Your task to perform on an android device: open wifi settings Image 0: 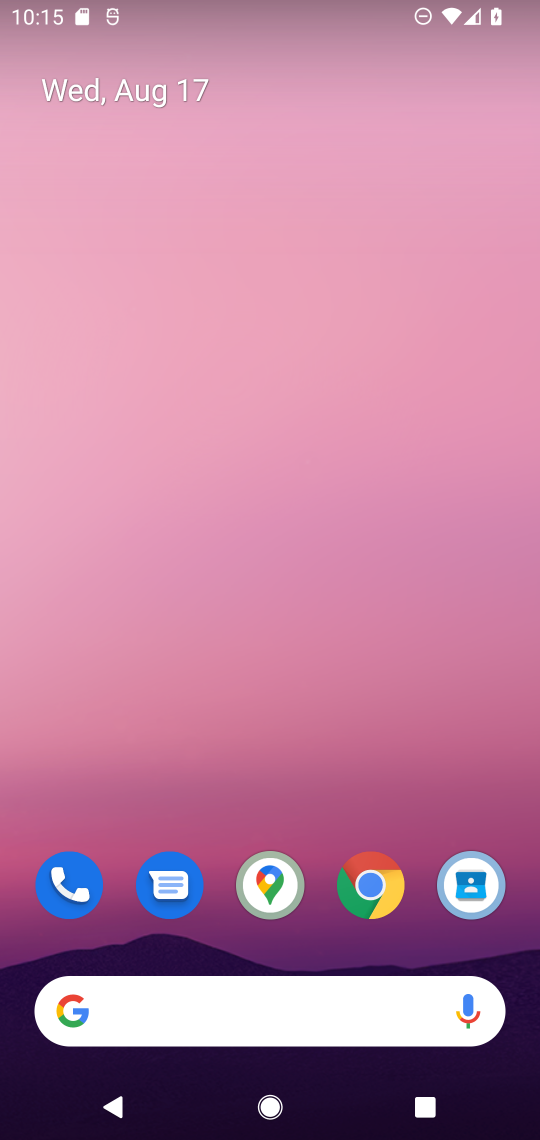
Step 0: drag from (423, 948) to (386, 134)
Your task to perform on an android device: open wifi settings Image 1: 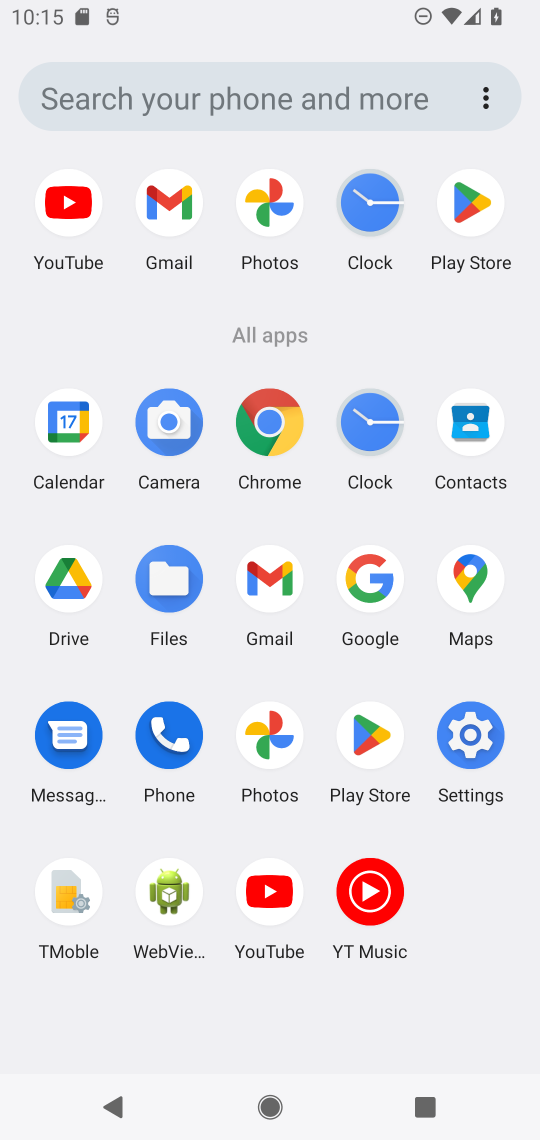
Step 1: click (467, 741)
Your task to perform on an android device: open wifi settings Image 2: 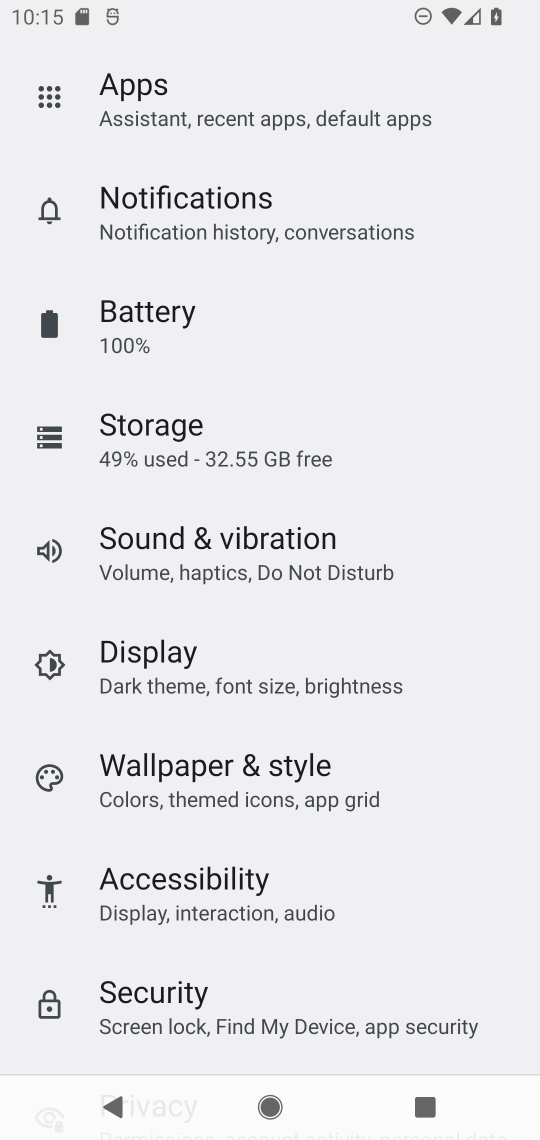
Step 2: drag from (443, 316) to (425, 826)
Your task to perform on an android device: open wifi settings Image 3: 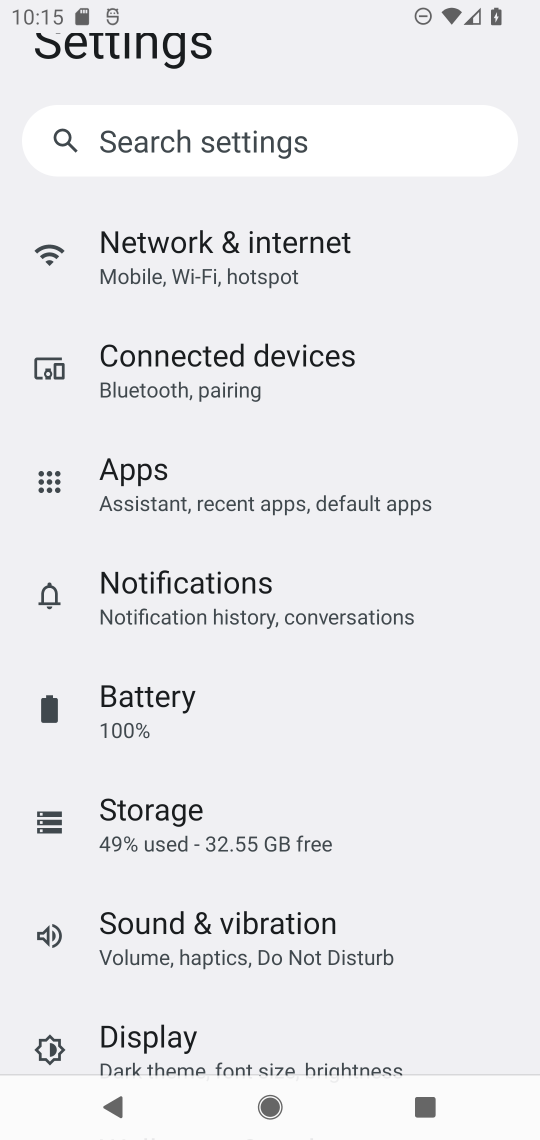
Step 3: click (171, 255)
Your task to perform on an android device: open wifi settings Image 4: 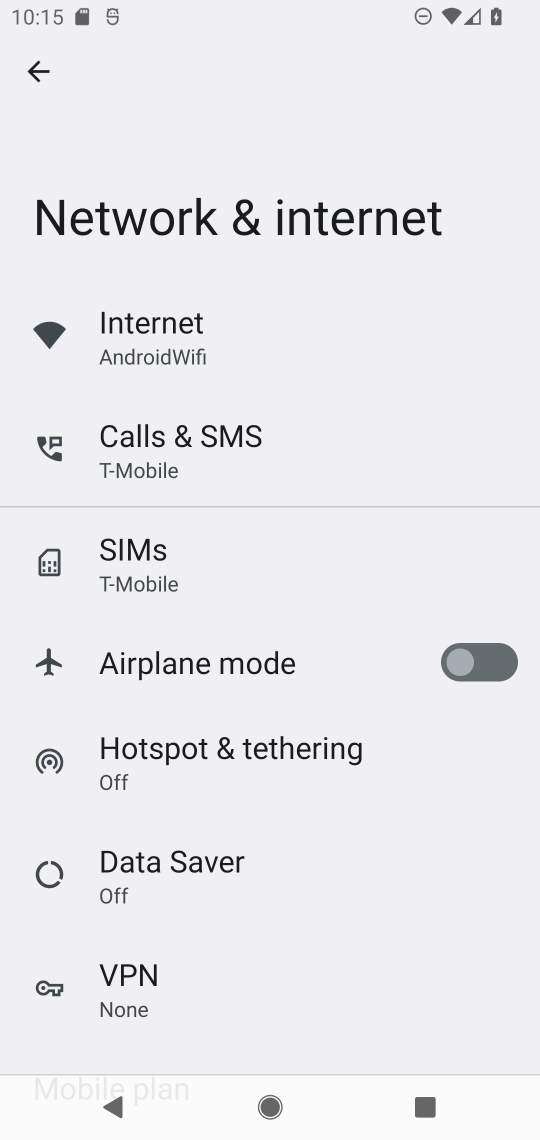
Step 4: click (152, 315)
Your task to perform on an android device: open wifi settings Image 5: 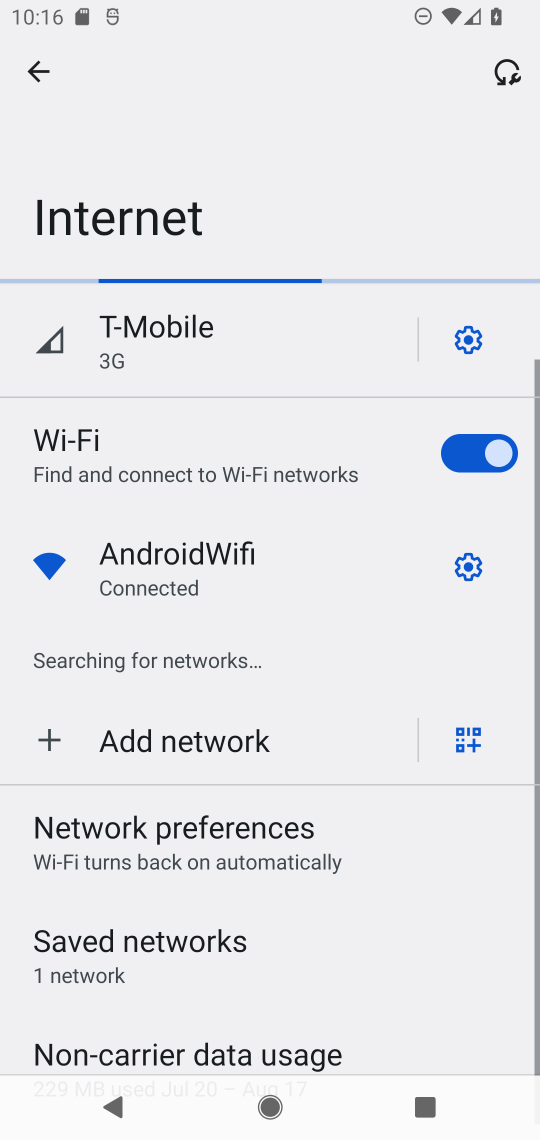
Step 5: click (471, 572)
Your task to perform on an android device: open wifi settings Image 6: 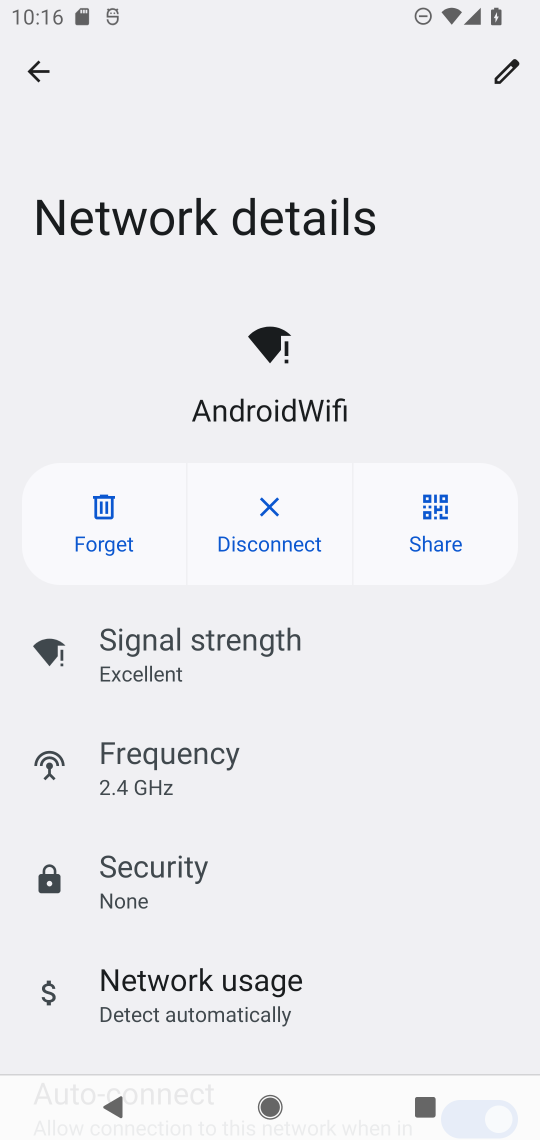
Step 6: task complete